Your task to perform on an android device: Open eBay Image 0: 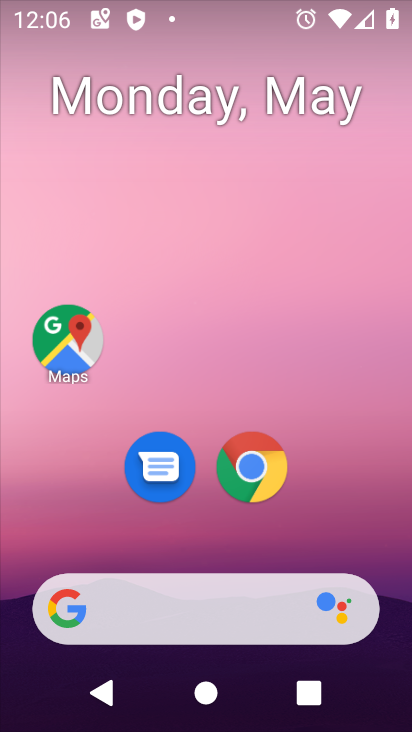
Step 0: drag from (394, 612) to (260, 60)
Your task to perform on an android device: Open eBay Image 1: 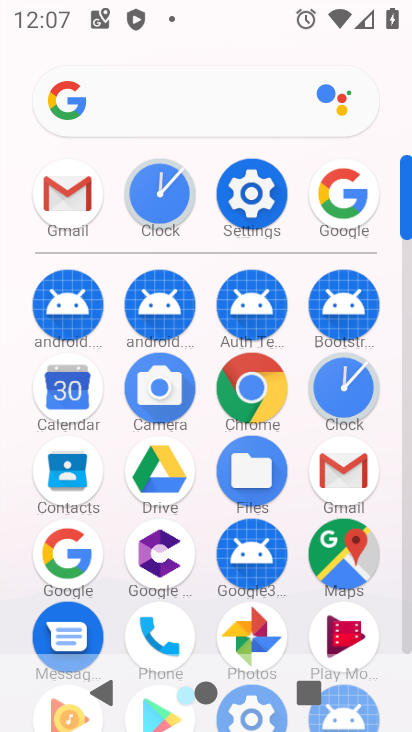
Step 1: click (40, 562)
Your task to perform on an android device: Open eBay Image 2: 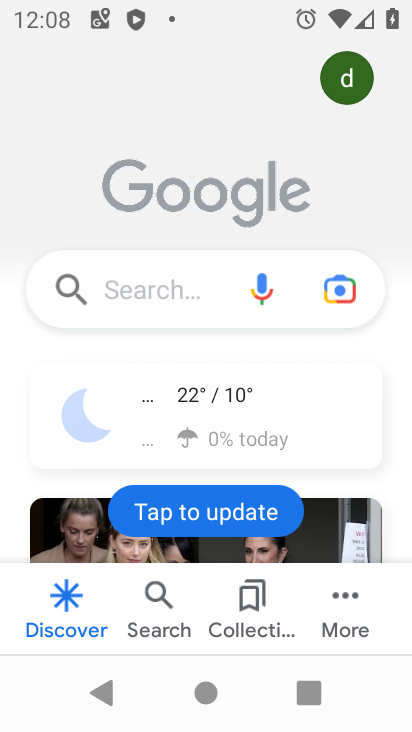
Step 2: click (162, 287)
Your task to perform on an android device: Open eBay Image 3: 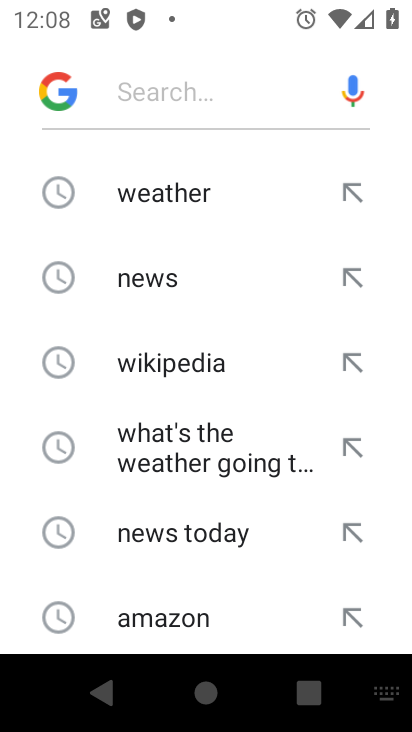
Step 3: drag from (198, 651) to (252, 102)
Your task to perform on an android device: Open eBay Image 4: 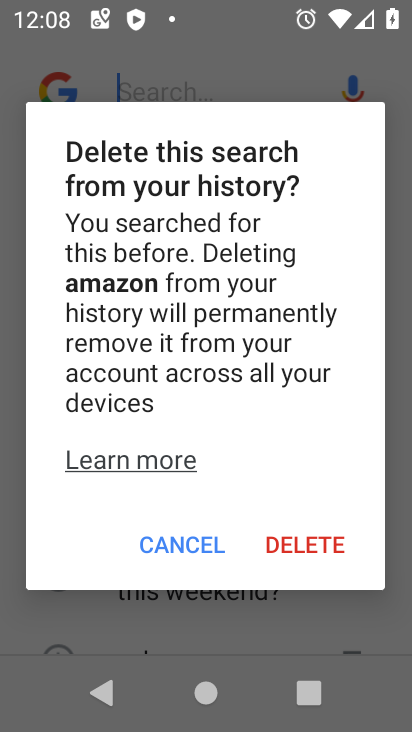
Step 4: click (199, 543)
Your task to perform on an android device: Open eBay Image 5: 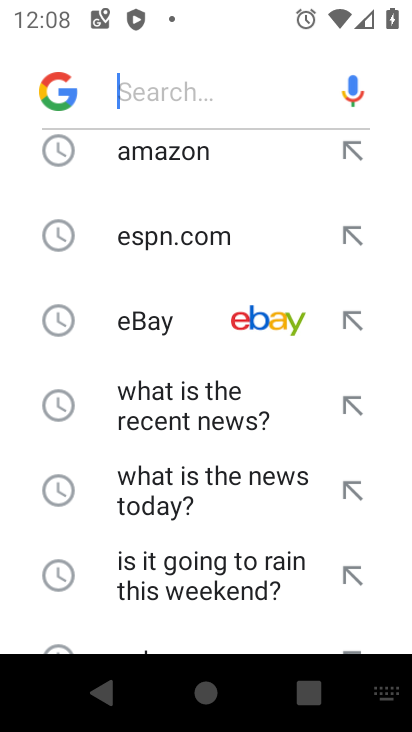
Step 5: click (199, 327)
Your task to perform on an android device: Open eBay Image 6: 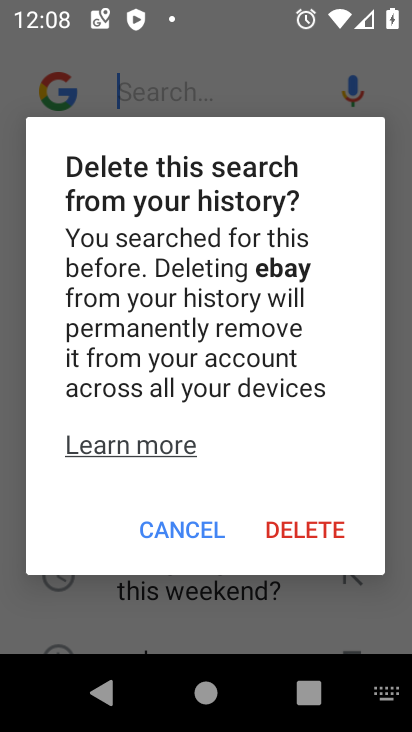
Step 6: click (208, 546)
Your task to perform on an android device: Open eBay Image 7: 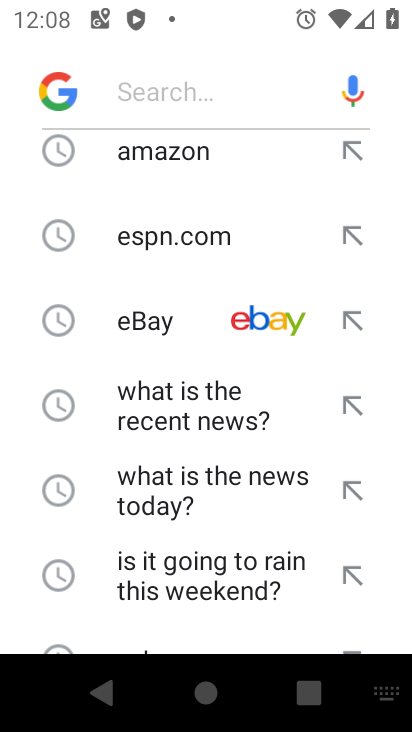
Step 7: click (169, 337)
Your task to perform on an android device: Open eBay Image 8: 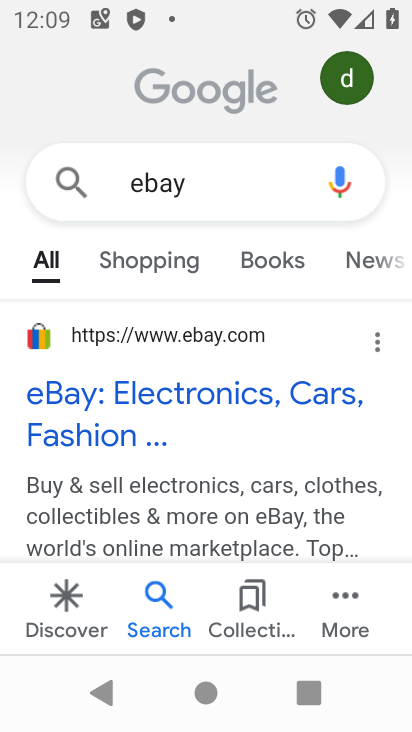
Step 8: task complete